Your task to perform on an android device: turn off picture-in-picture Image 0: 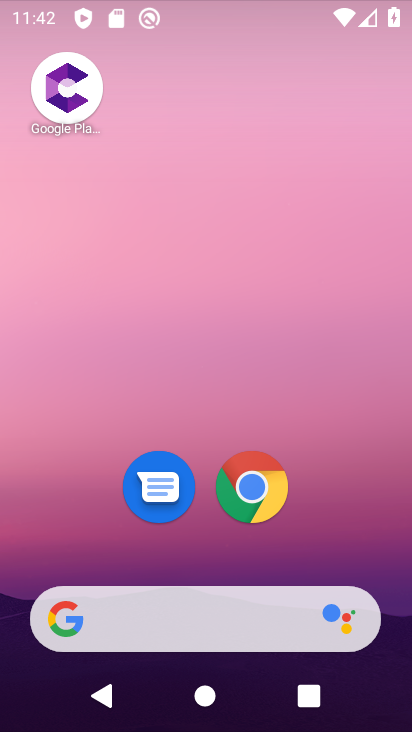
Step 0: drag from (355, 557) to (333, 292)
Your task to perform on an android device: turn off picture-in-picture Image 1: 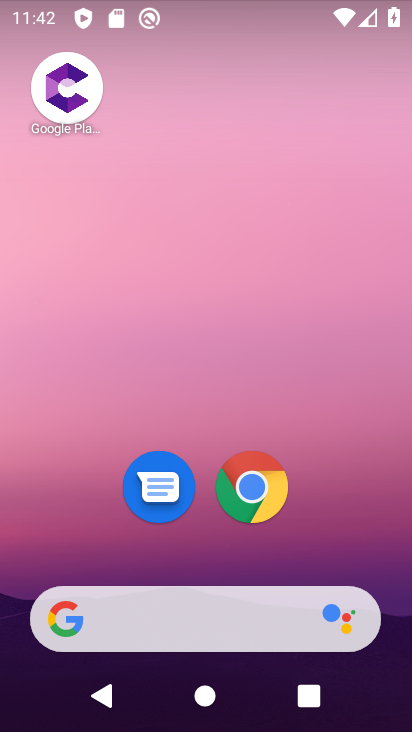
Step 1: drag from (335, 517) to (319, 54)
Your task to perform on an android device: turn off picture-in-picture Image 2: 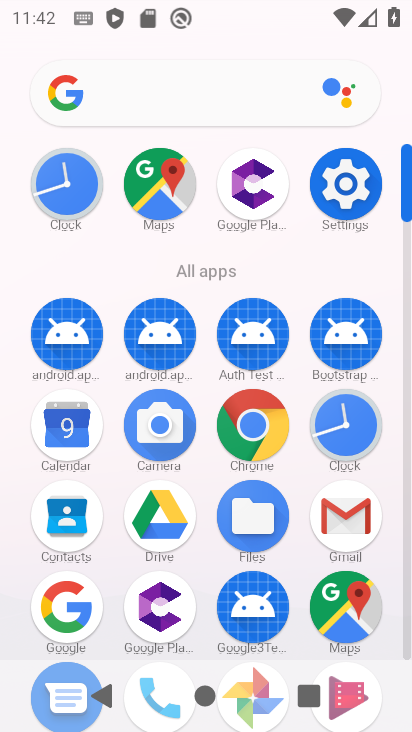
Step 2: click (323, 203)
Your task to perform on an android device: turn off picture-in-picture Image 3: 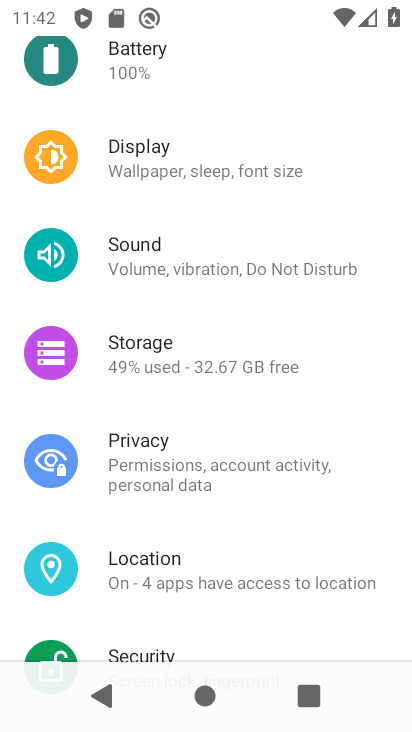
Step 3: drag from (201, 518) to (274, 702)
Your task to perform on an android device: turn off picture-in-picture Image 4: 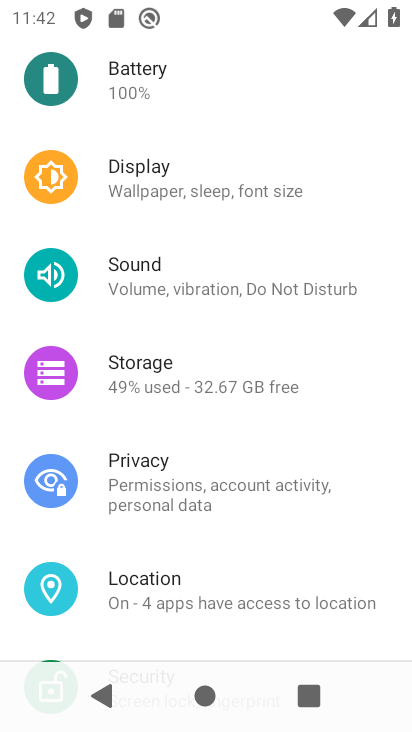
Step 4: click (265, 610)
Your task to perform on an android device: turn off picture-in-picture Image 5: 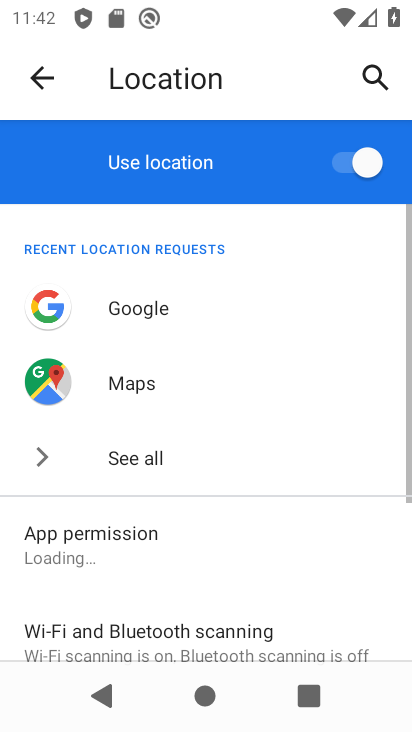
Step 5: click (266, 580)
Your task to perform on an android device: turn off picture-in-picture Image 6: 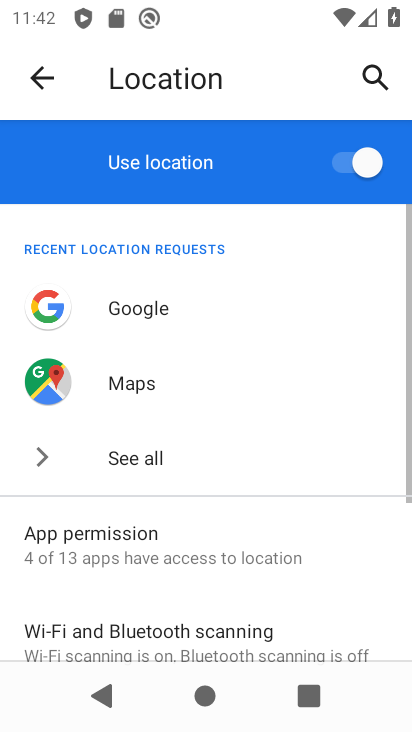
Step 6: drag from (289, 490) to (305, 441)
Your task to perform on an android device: turn off picture-in-picture Image 7: 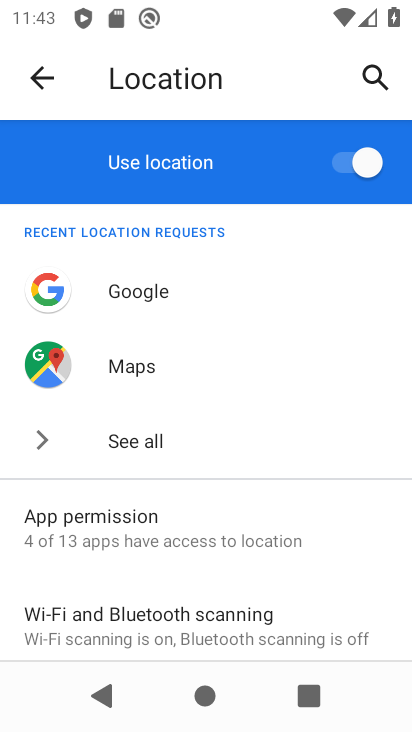
Step 7: drag from (293, 562) to (305, 451)
Your task to perform on an android device: turn off picture-in-picture Image 8: 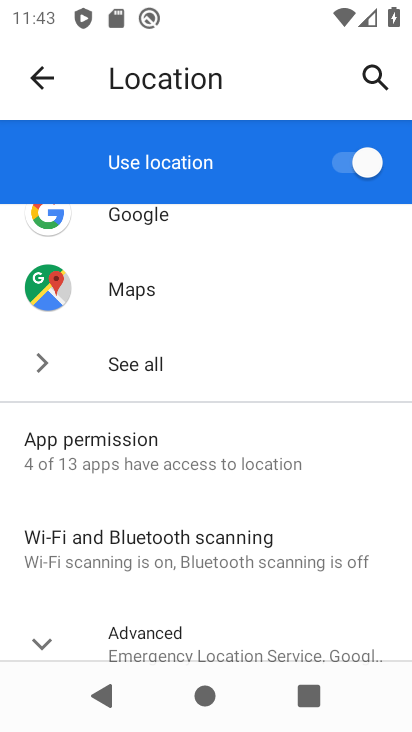
Step 8: click (223, 628)
Your task to perform on an android device: turn off picture-in-picture Image 9: 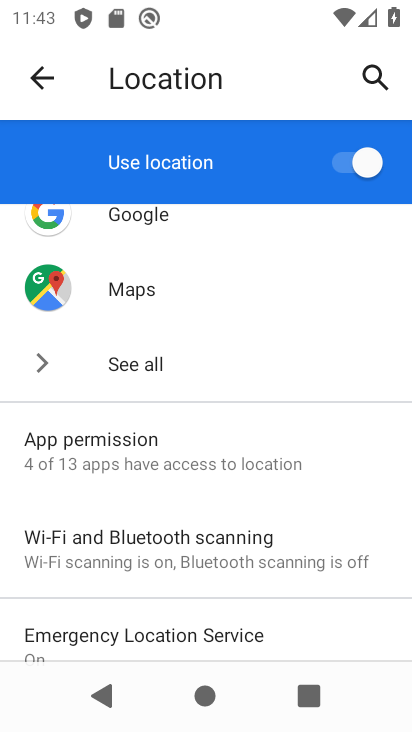
Step 9: drag from (286, 594) to (251, 60)
Your task to perform on an android device: turn off picture-in-picture Image 10: 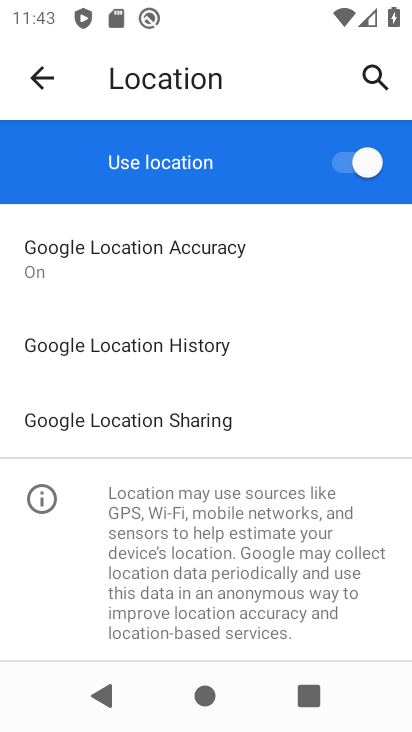
Step 10: click (32, 73)
Your task to perform on an android device: turn off picture-in-picture Image 11: 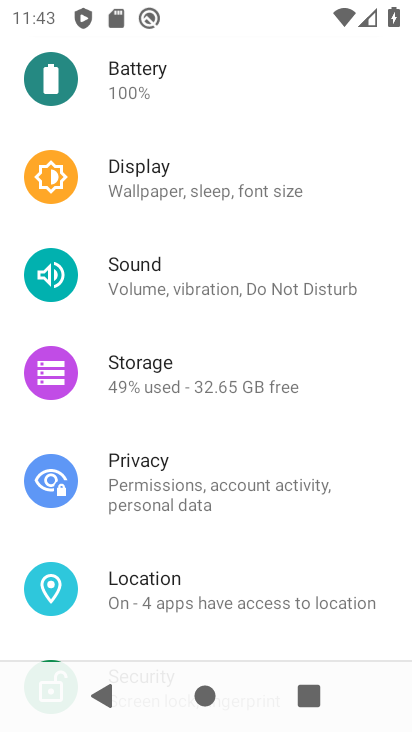
Step 11: drag from (216, 240) to (345, 727)
Your task to perform on an android device: turn off picture-in-picture Image 12: 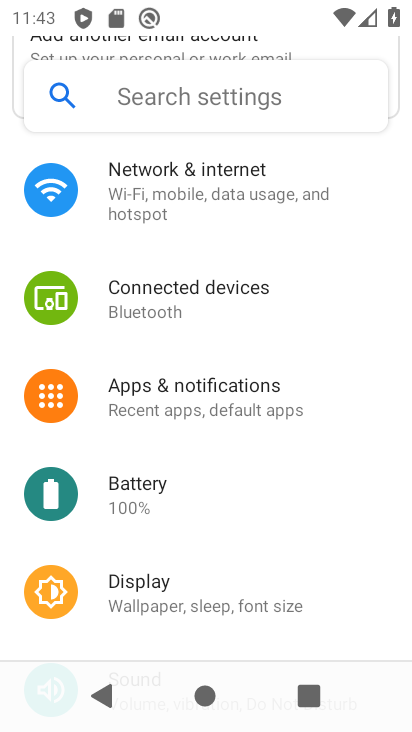
Step 12: click (246, 397)
Your task to perform on an android device: turn off picture-in-picture Image 13: 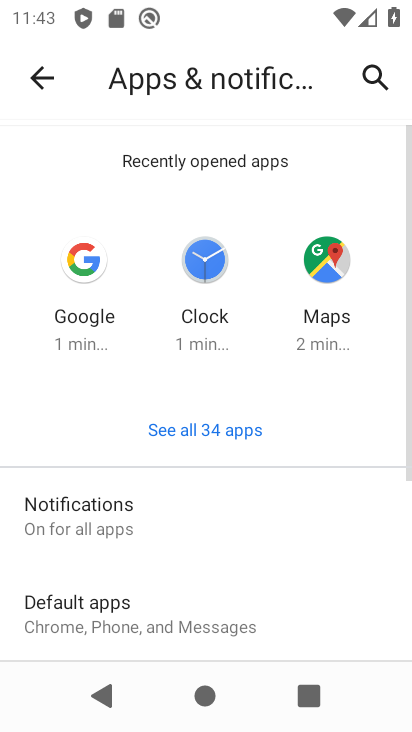
Step 13: drag from (254, 586) to (301, 268)
Your task to perform on an android device: turn off picture-in-picture Image 14: 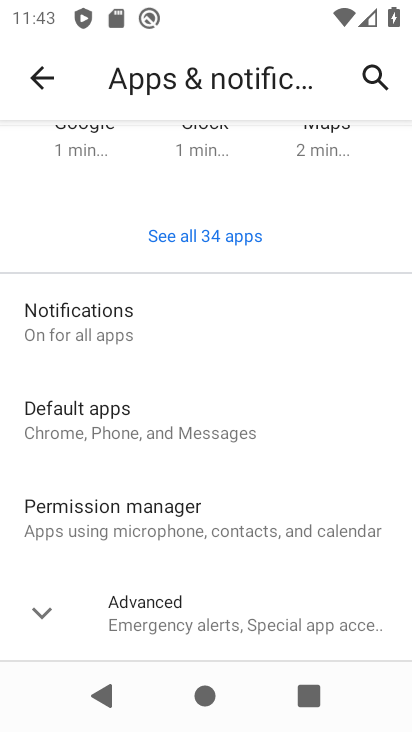
Step 14: click (144, 630)
Your task to perform on an android device: turn off picture-in-picture Image 15: 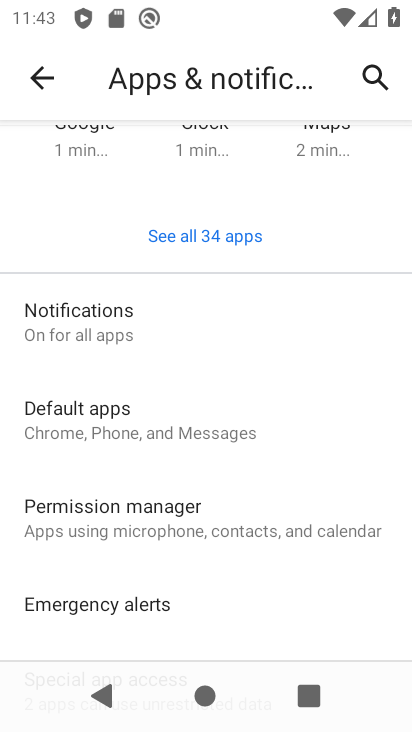
Step 15: drag from (144, 630) to (131, 303)
Your task to perform on an android device: turn off picture-in-picture Image 16: 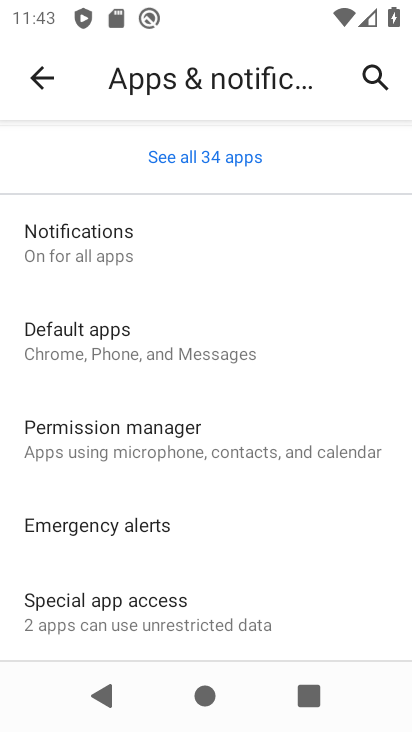
Step 16: click (121, 586)
Your task to perform on an android device: turn off picture-in-picture Image 17: 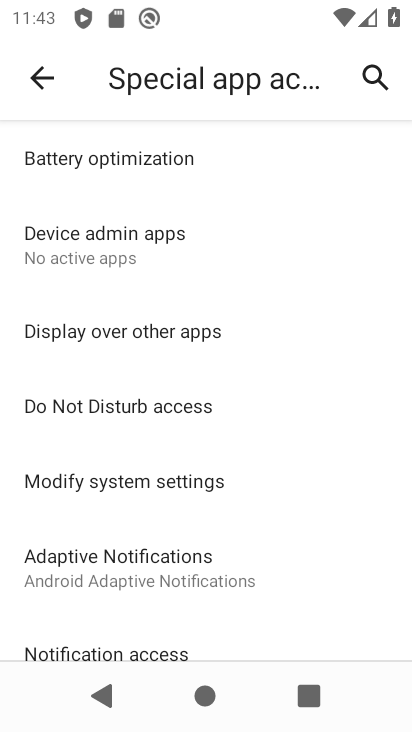
Step 17: drag from (188, 474) to (189, 274)
Your task to perform on an android device: turn off picture-in-picture Image 18: 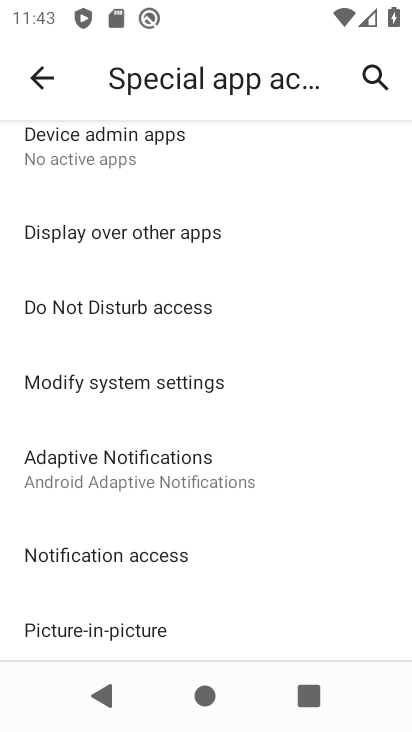
Step 18: click (155, 635)
Your task to perform on an android device: turn off picture-in-picture Image 19: 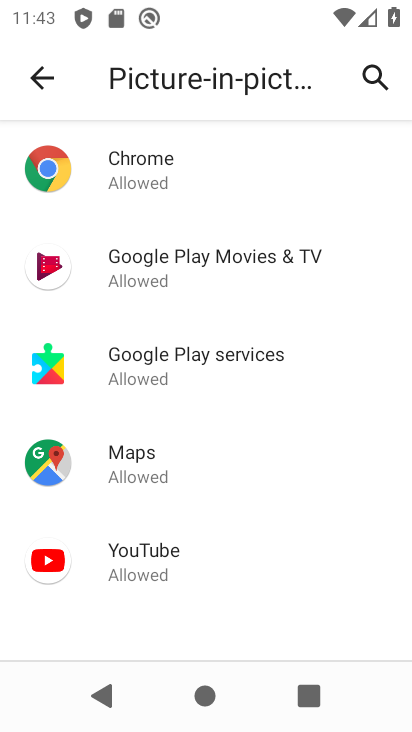
Step 19: click (263, 190)
Your task to perform on an android device: turn off picture-in-picture Image 20: 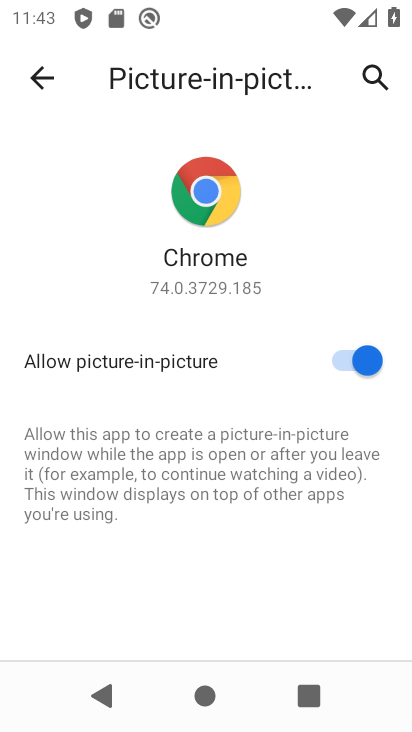
Step 20: click (339, 349)
Your task to perform on an android device: turn off picture-in-picture Image 21: 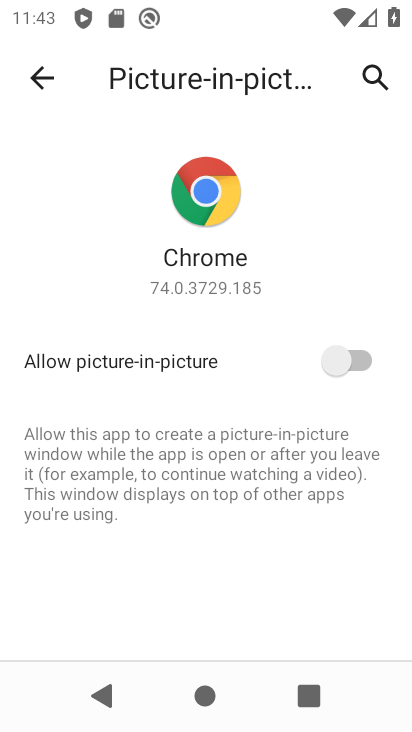
Step 21: task complete